Your task to perform on an android device: change timer sound Image 0: 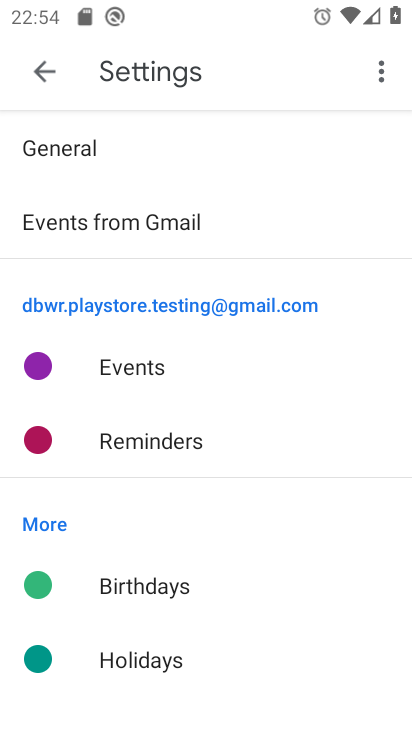
Step 0: press home button
Your task to perform on an android device: change timer sound Image 1: 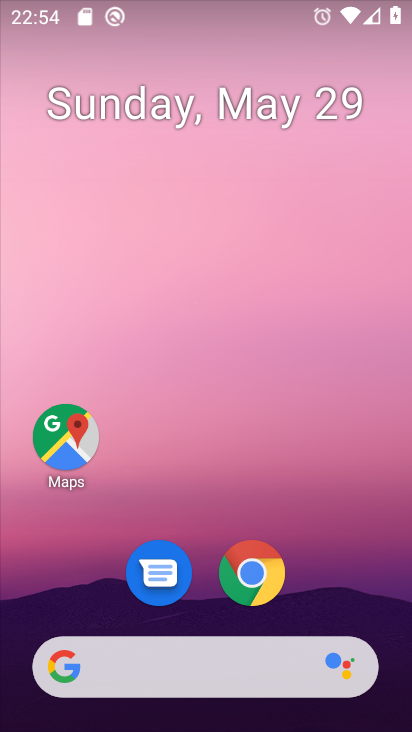
Step 1: drag from (208, 514) to (212, 19)
Your task to perform on an android device: change timer sound Image 2: 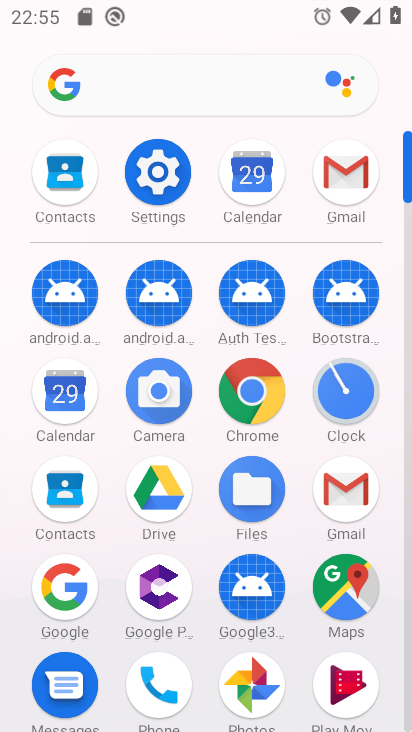
Step 2: click (336, 395)
Your task to perform on an android device: change timer sound Image 3: 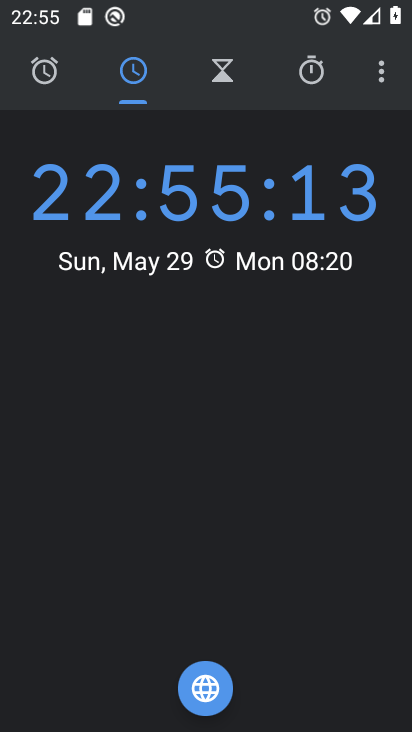
Step 3: click (376, 81)
Your task to perform on an android device: change timer sound Image 4: 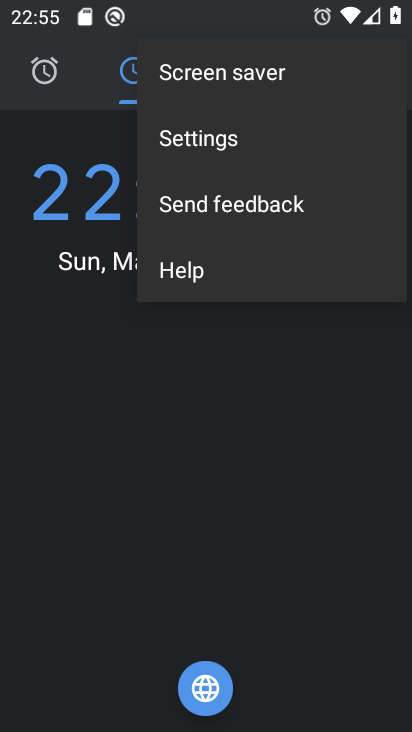
Step 4: click (248, 143)
Your task to perform on an android device: change timer sound Image 5: 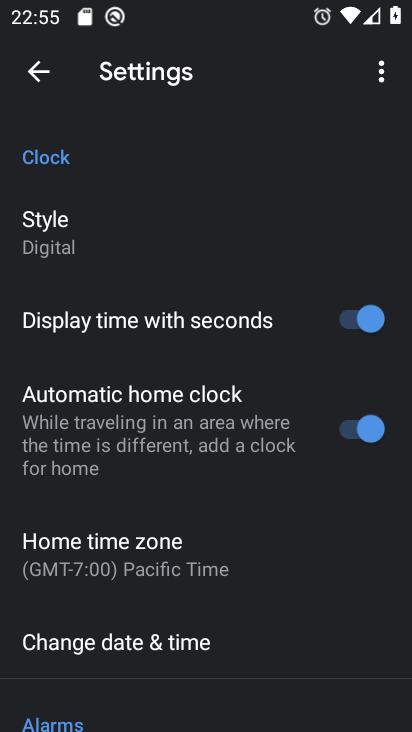
Step 5: drag from (210, 579) to (249, 139)
Your task to perform on an android device: change timer sound Image 6: 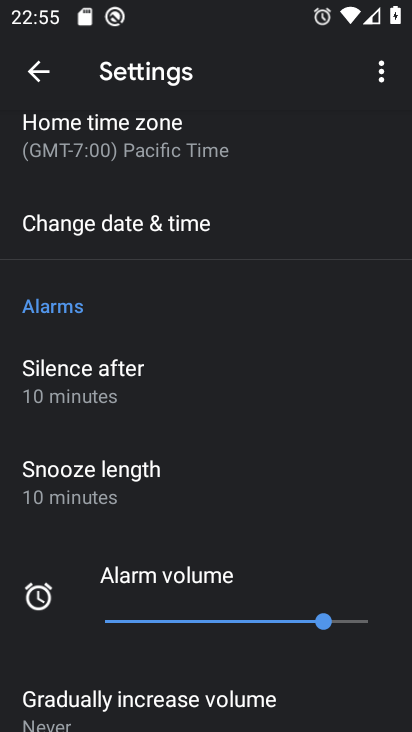
Step 6: drag from (200, 502) to (252, 10)
Your task to perform on an android device: change timer sound Image 7: 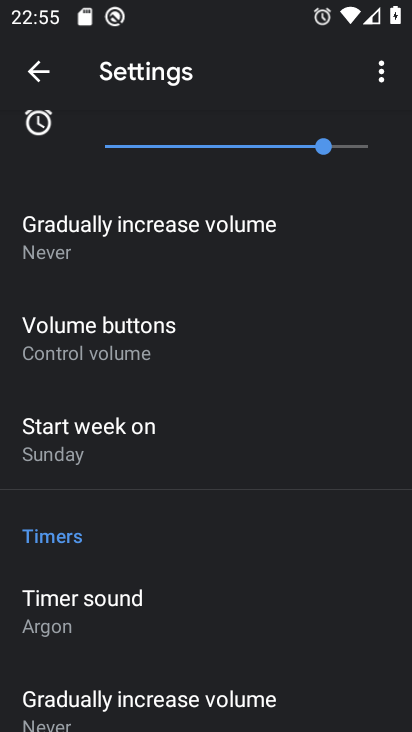
Step 7: click (173, 618)
Your task to perform on an android device: change timer sound Image 8: 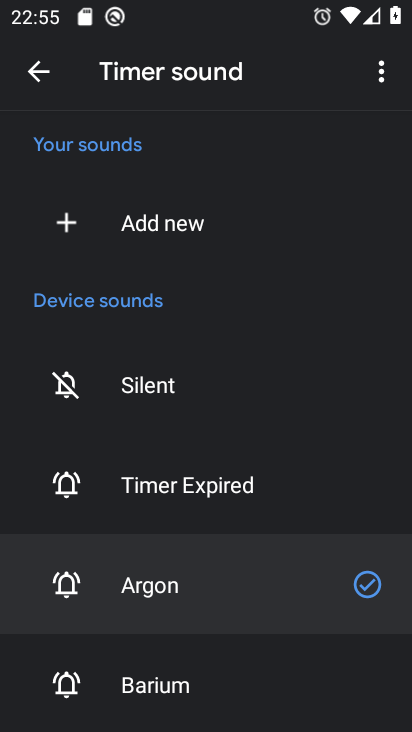
Step 8: click (227, 680)
Your task to perform on an android device: change timer sound Image 9: 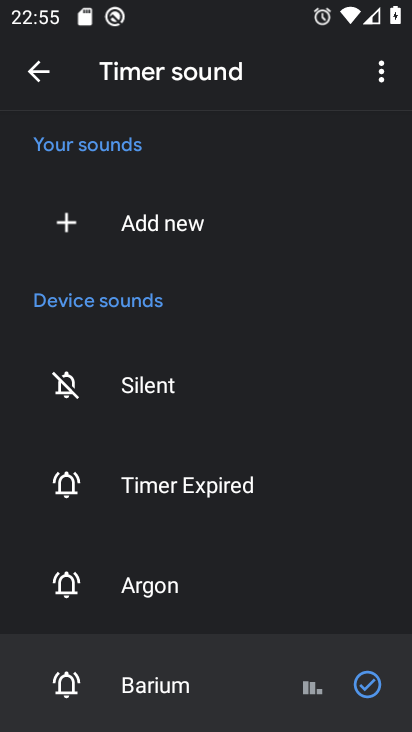
Step 9: task complete